Your task to perform on an android device: turn off wifi Image 0: 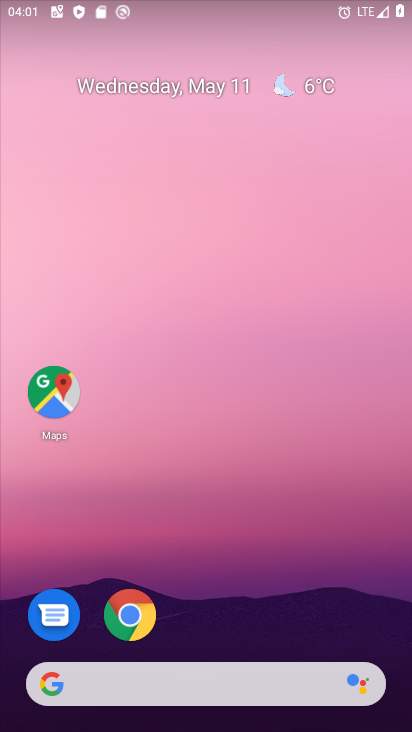
Step 0: drag from (294, 6) to (292, 520)
Your task to perform on an android device: turn off wifi Image 1: 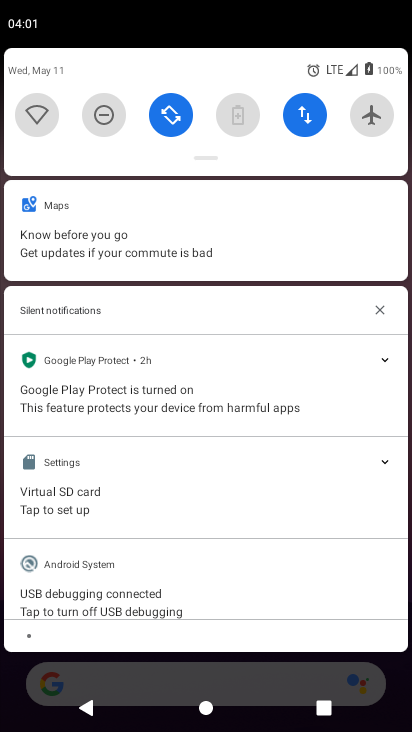
Step 1: task complete